Your task to perform on an android device: Do I have any events today? Image 0: 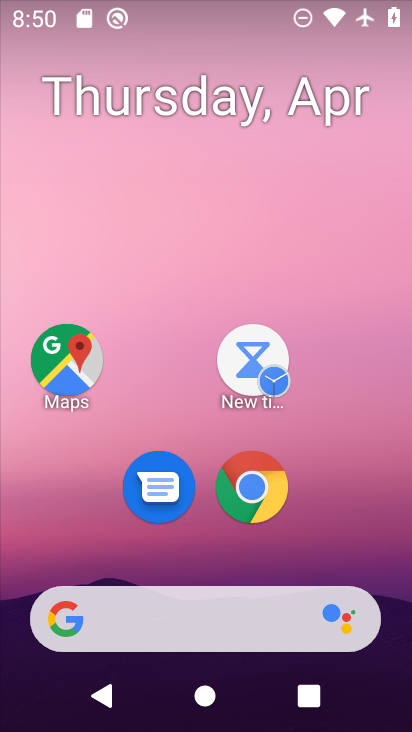
Step 0: drag from (334, 406) to (303, 140)
Your task to perform on an android device: Do I have any events today? Image 1: 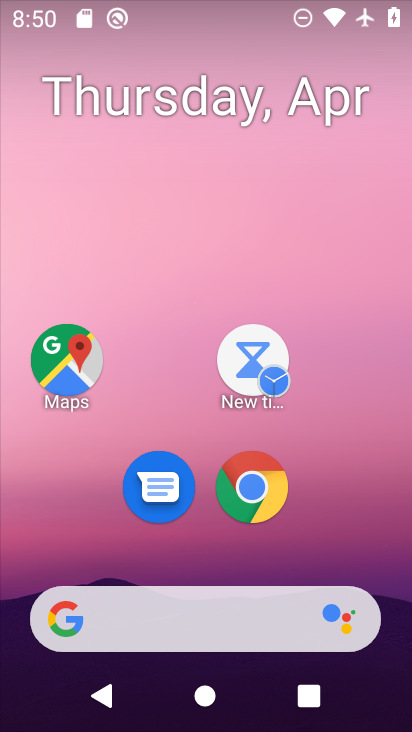
Step 1: drag from (331, 435) to (303, 97)
Your task to perform on an android device: Do I have any events today? Image 2: 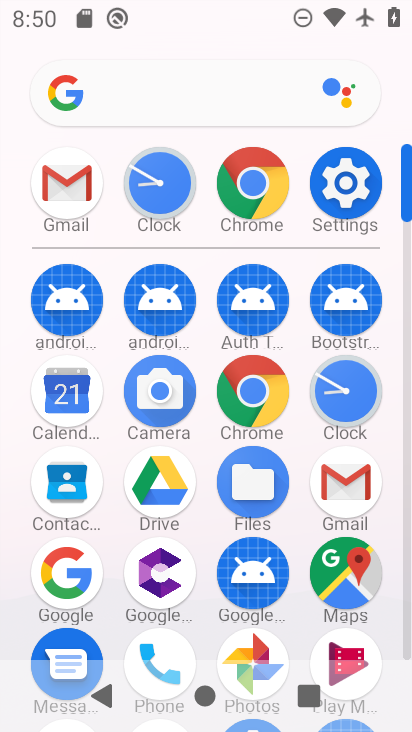
Step 2: click (55, 388)
Your task to perform on an android device: Do I have any events today? Image 3: 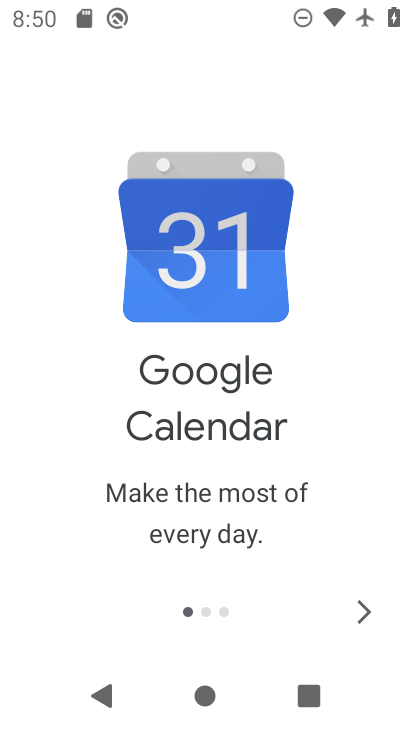
Step 3: click (380, 620)
Your task to perform on an android device: Do I have any events today? Image 4: 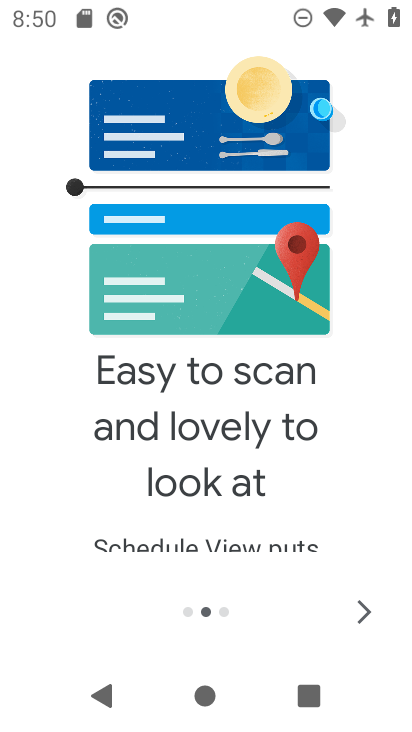
Step 4: click (372, 612)
Your task to perform on an android device: Do I have any events today? Image 5: 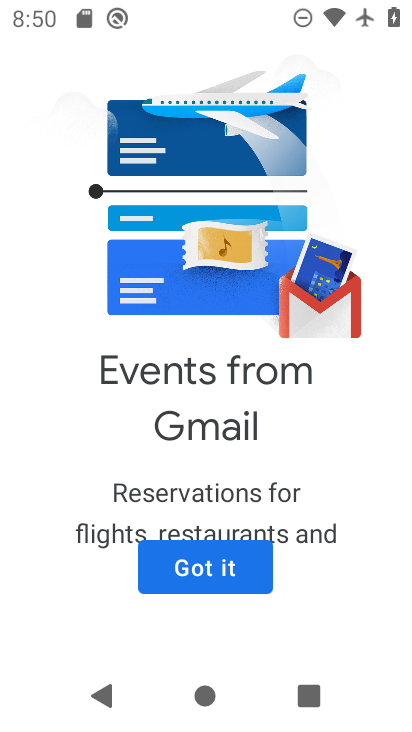
Step 5: click (262, 569)
Your task to perform on an android device: Do I have any events today? Image 6: 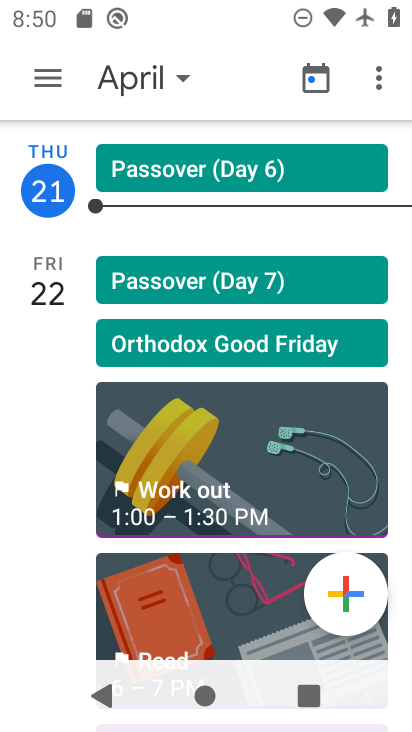
Step 6: task complete